Your task to perform on an android device: Go to notification settings Image 0: 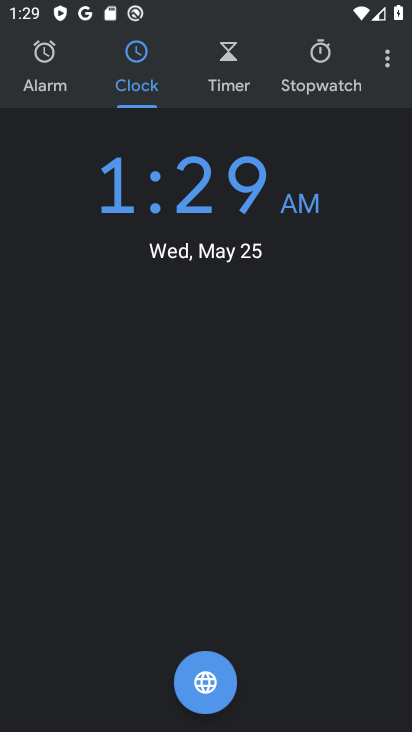
Step 0: press home button
Your task to perform on an android device: Go to notification settings Image 1: 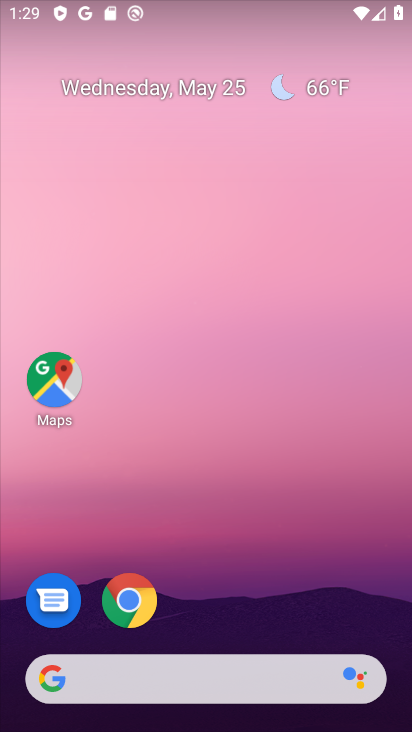
Step 1: drag from (148, 647) to (241, 194)
Your task to perform on an android device: Go to notification settings Image 2: 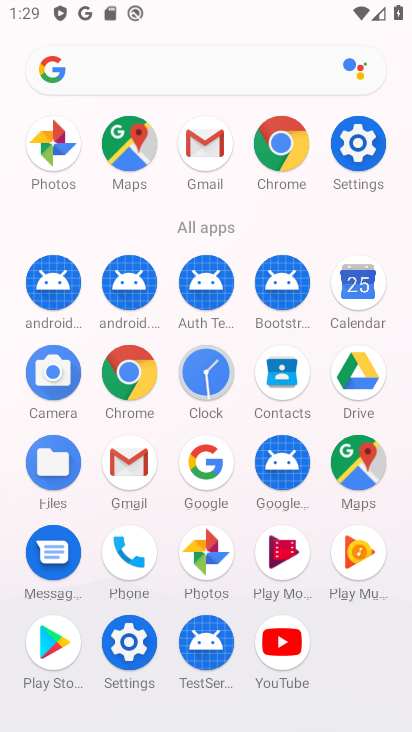
Step 2: click (140, 649)
Your task to perform on an android device: Go to notification settings Image 3: 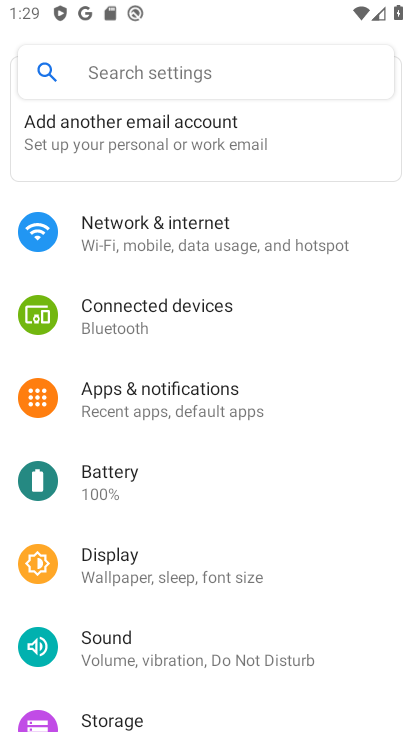
Step 3: drag from (168, 581) to (243, 319)
Your task to perform on an android device: Go to notification settings Image 4: 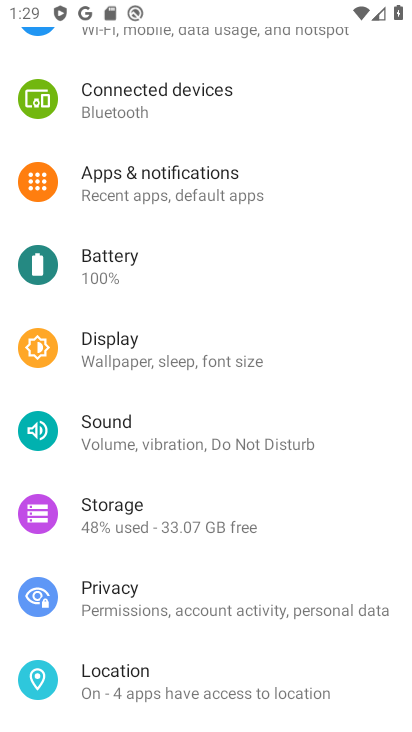
Step 4: click (203, 194)
Your task to perform on an android device: Go to notification settings Image 5: 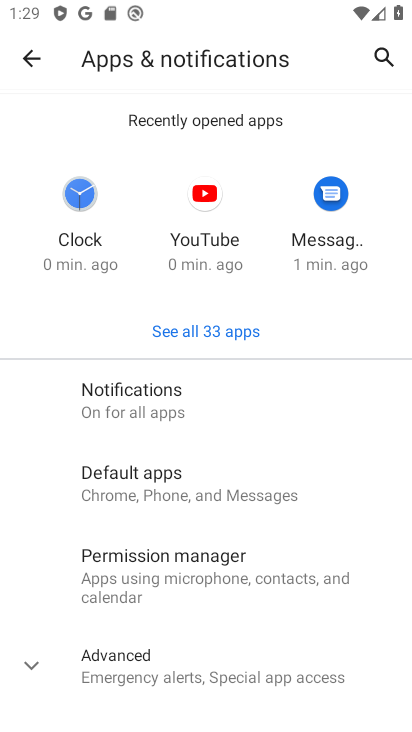
Step 5: click (190, 396)
Your task to perform on an android device: Go to notification settings Image 6: 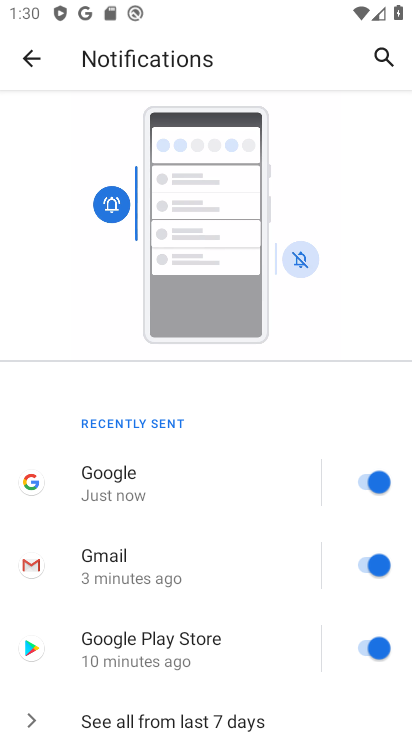
Step 6: task complete